Your task to perform on an android device: turn vacation reply on in the gmail app Image 0: 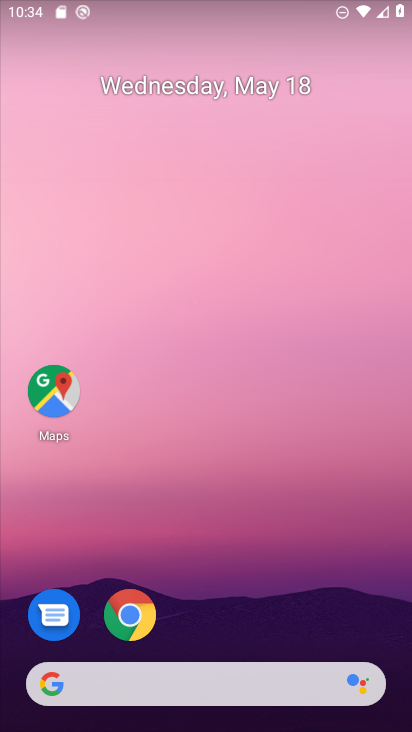
Step 0: drag from (216, 540) to (230, 121)
Your task to perform on an android device: turn vacation reply on in the gmail app Image 1: 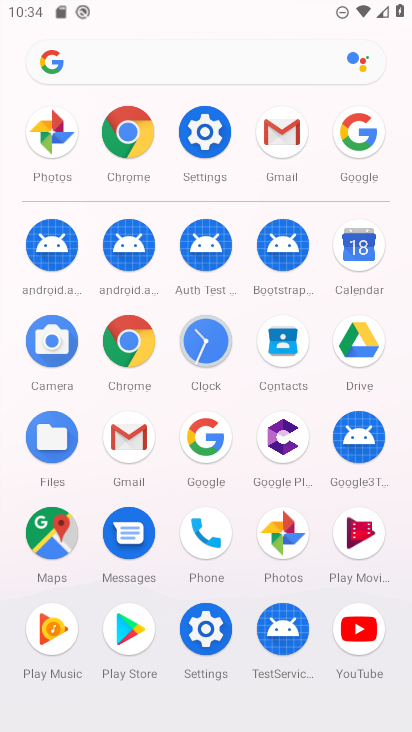
Step 1: click (273, 133)
Your task to perform on an android device: turn vacation reply on in the gmail app Image 2: 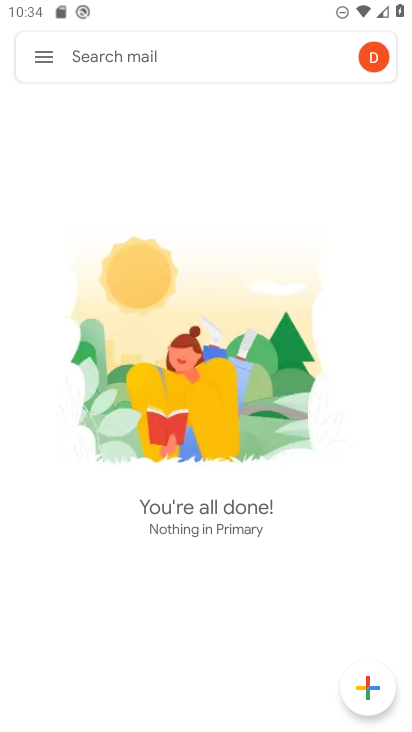
Step 2: click (38, 66)
Your task to perform on an android device: turn vacation reply on in the gmail app Image 3: 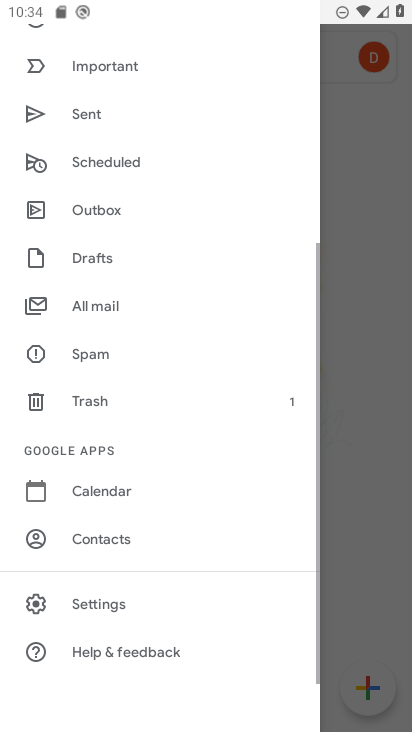
Step 3: click (120, 617)
Your task to perform on an android device: turn vacation reply on in the gmail app Image 4: 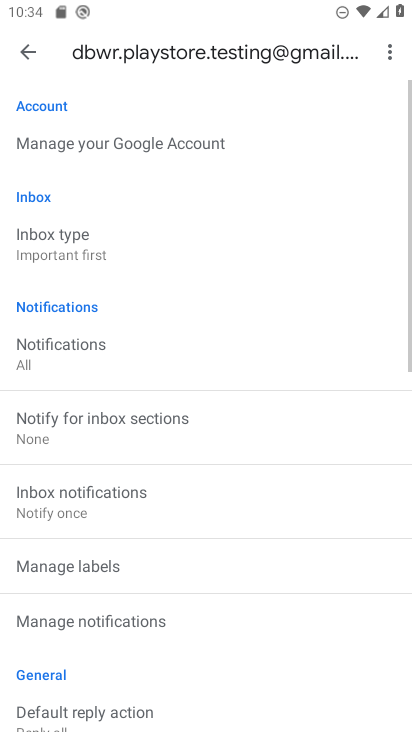
Step 4: drag from (182, 582) to (163, 223)
Your task to perform on an android device: turn vacation reply on in the gmail app Image 5: 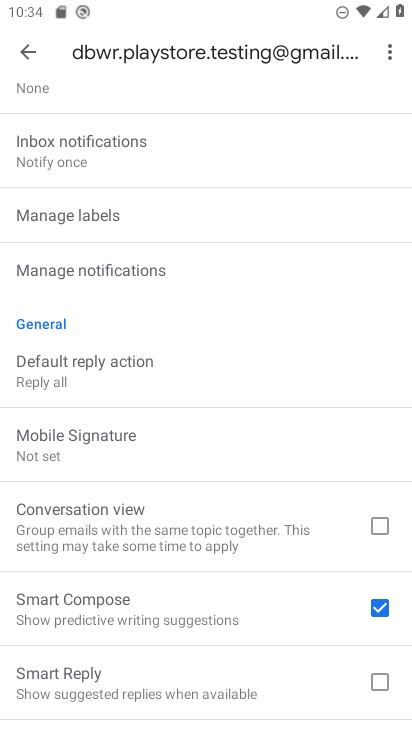
Step 5: drag from (146, 675) to (180, 449)
Your task to perform on an android device: turn vacation reply on in the gmail app Image 6: 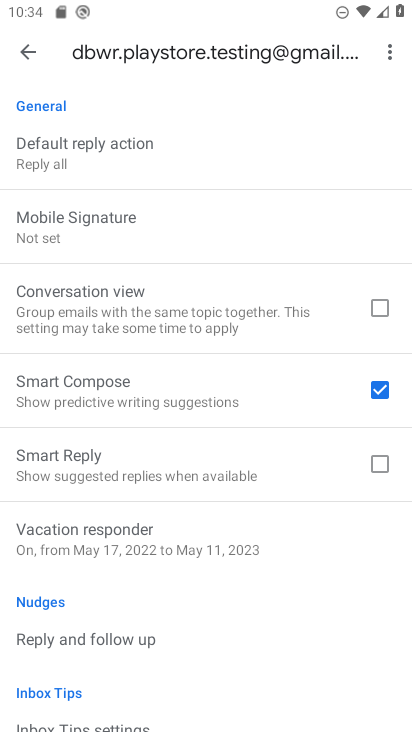
Step 6: click (88, 533)
Your task to perform on an android device: turn vacation reply on in the gmail app Image 7: 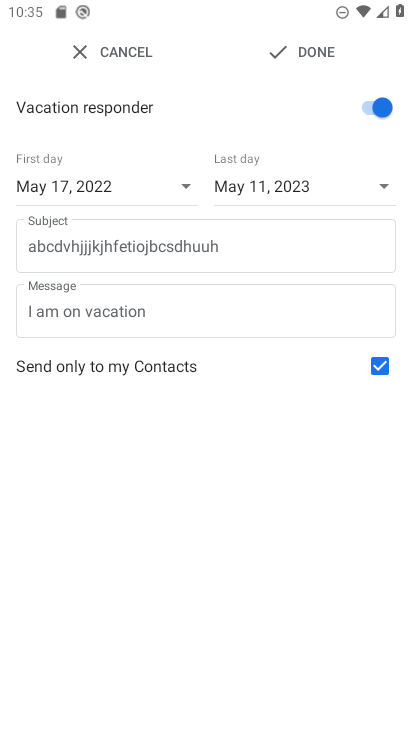
Step 7: task complete